Your task to perform on an android device: turn pop-ups off in chrome Image 0: 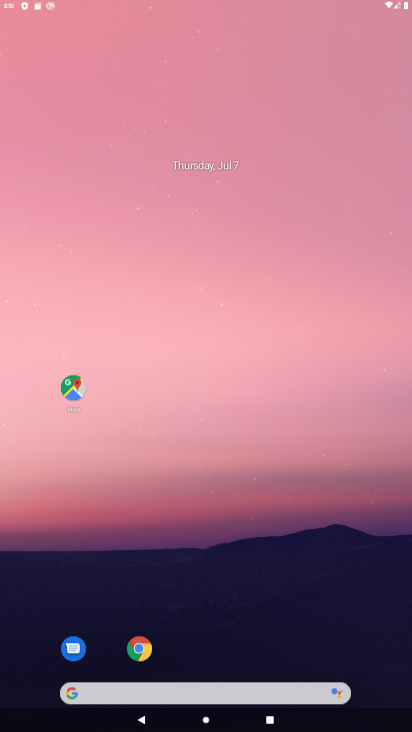
Step 0: drag from (284, 569) to (315, 271)
Your task to perform on an android device: turn pop-ups off in chrome Image 1: 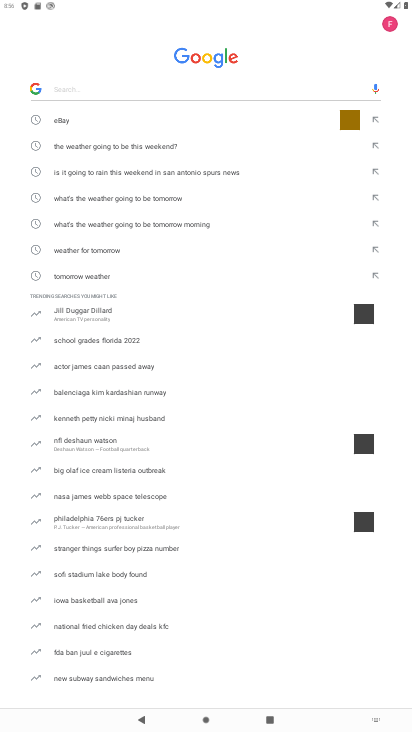
Step 1: press home button
Your task to perform on an android device: turn pop-ups off in chrome Image 2: 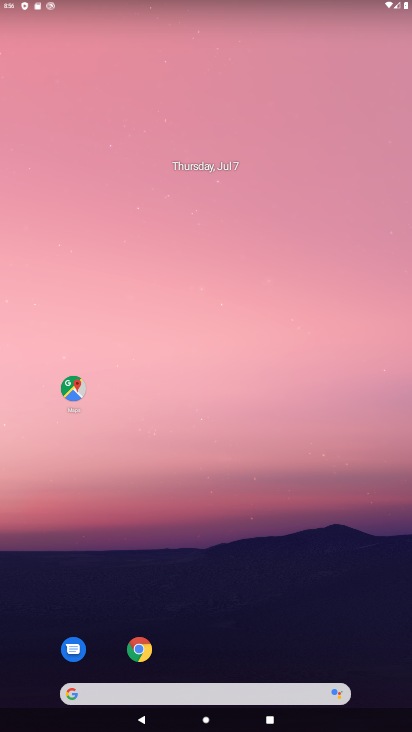
Step 2: drag from (245, 580) to (274, 192)
Your task to perform on an android device: turn pop-ups off in chrome Image 3: 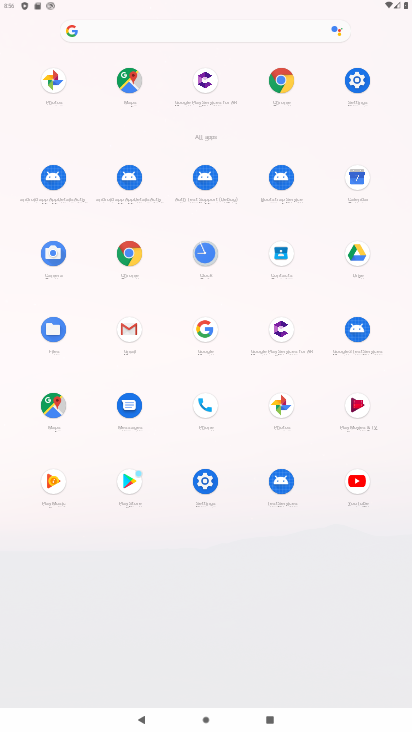
Step 3: click (132, 250)
Your task to perform on an android device: turn pop-ups off in chrome Image 4: 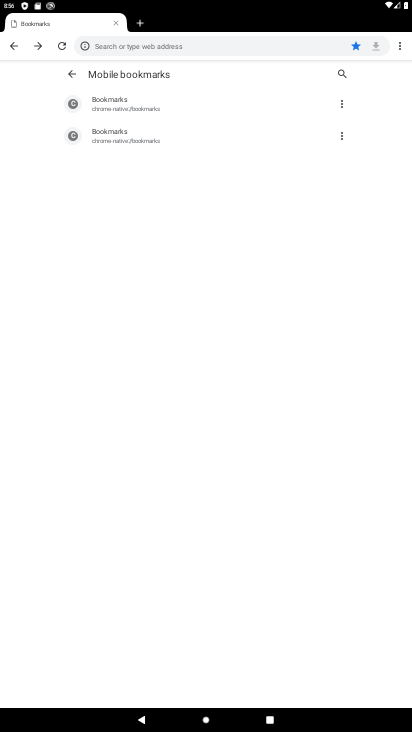
Step 4: click (11, 47)
Your task to perform on an android device: turn pop-ups off in chrome Image 5: 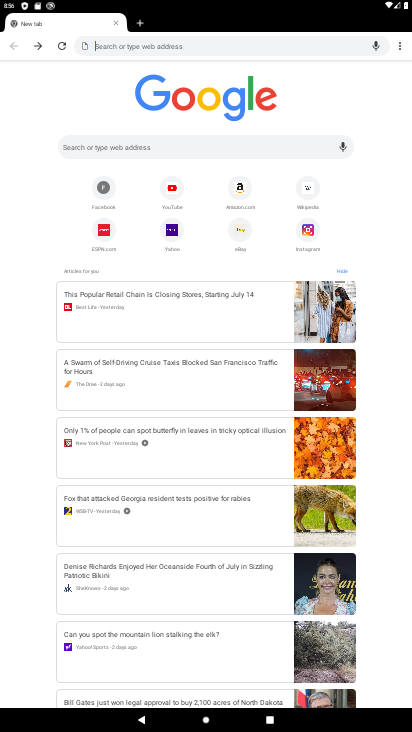
Step 5: click (398, 43)
Your task to perform on an android device: turn pop-ups off in chrome Image 6: 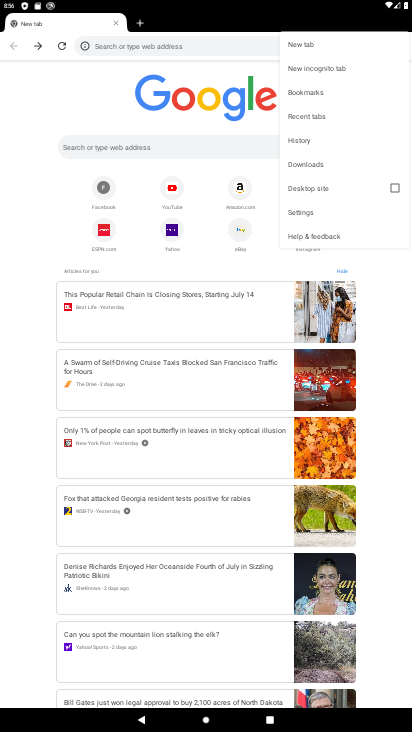
Step 6: click (307, 216)
Your task to perform on an android device: turn pop-ups off in chrome Image 7: 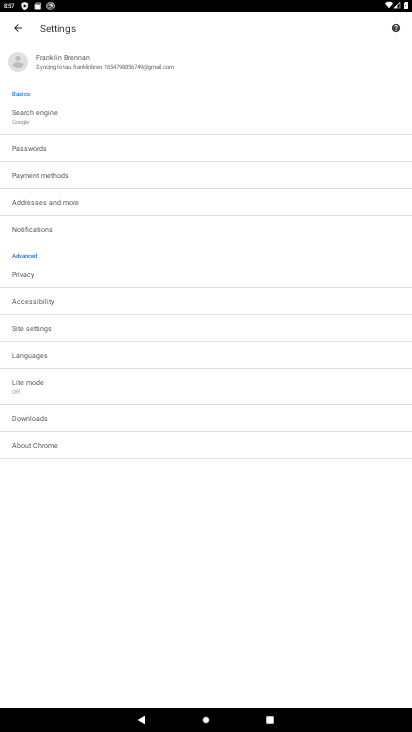
Step 7: task complete